Your task to perform on an android device: Is it going to rain this weekend? Image 0: 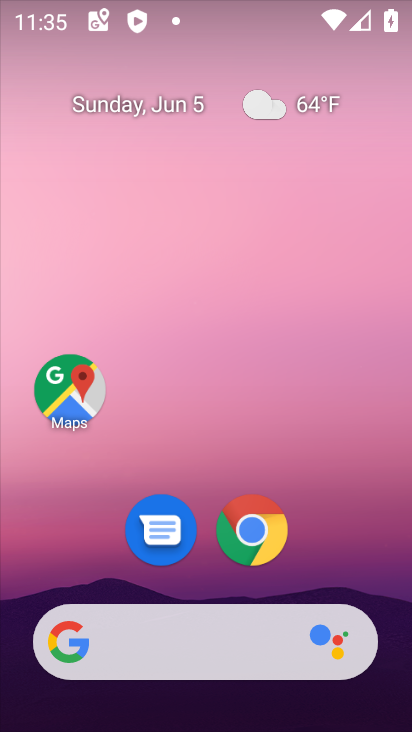
Step 0: click (316, 117)
Your task to perform on an android device: Is it going to rain this weekend? Image 1: 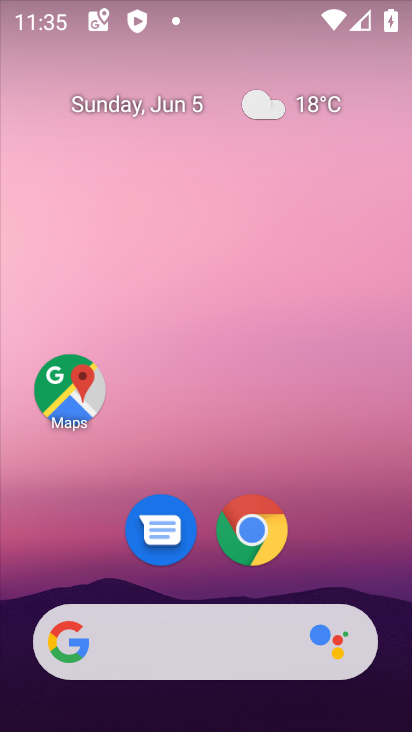
Step 1: drag from (388, 554) to (331, 716)
Your task to perform on an android device: Is it going to rain this weekend? Image 2: 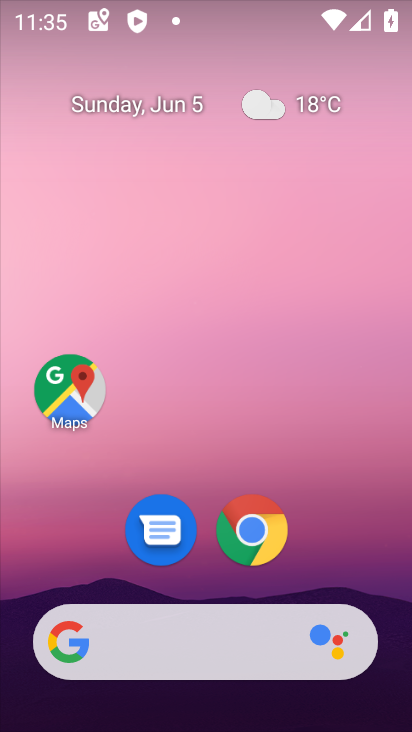
Step 2: click (322, 68)
Your task to perform on an android device: Is it going to rain this weekend? Image 3: 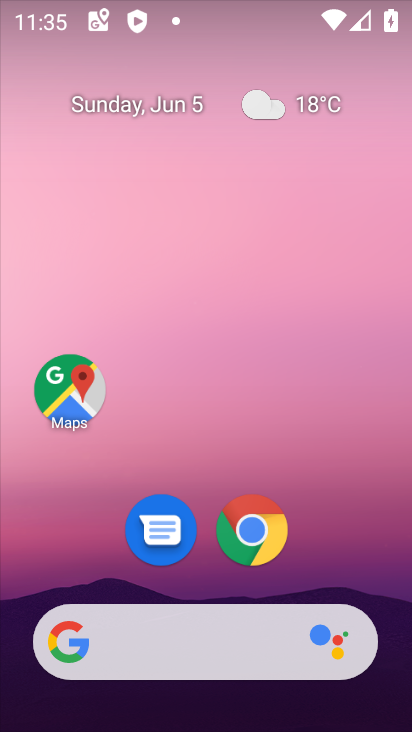
Step 3: click (327, 84)
Your task to perform on an android device: Is it going to rain this weekend? Image 4: 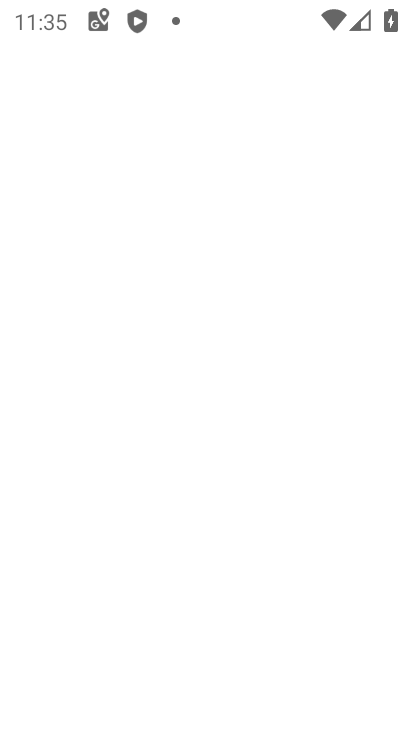
Step 4: click (311, 96)
Your task to perform on an android device: Is it going to rain this weekend? Image 5: 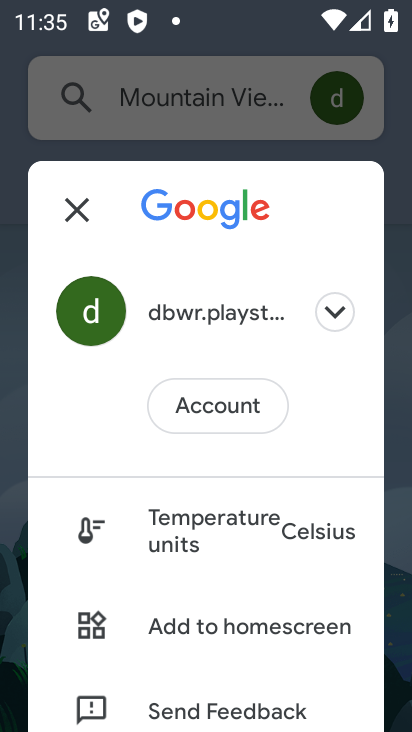
Step 5: click (63, 210)
Your task to perform on an android device: Is it going to rain this weekend? Image 6: 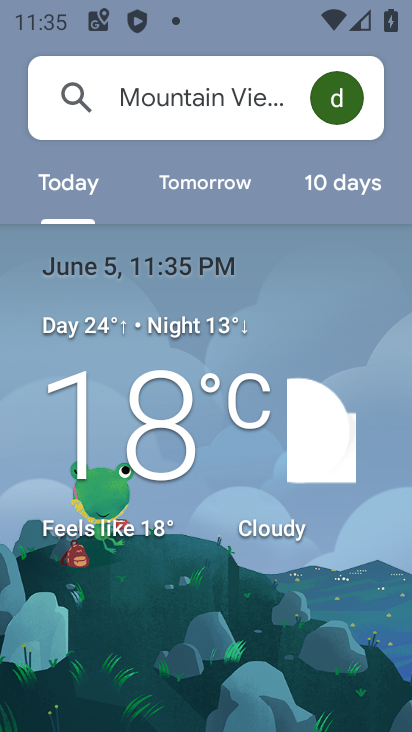
Step 6: click (317, 194)
Your task to perform on an android device: Is it going to rain this weekend? Image 7: 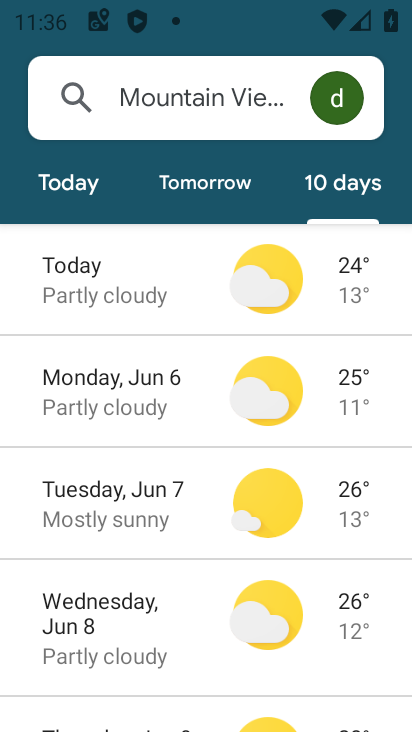
Step 7: task complete